Your task to perform on an android device: manage bookmarks in the chrome app Image 0: 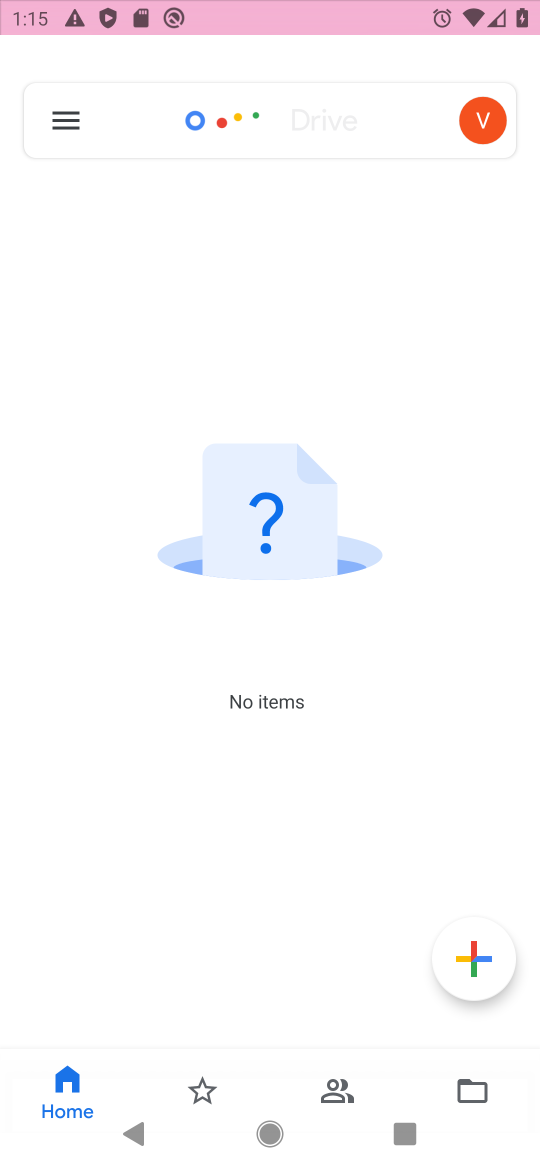
Step 0: click (307, 1059)
Your task to perform on an android device: manage bookmarks in the chrome app Image 1: 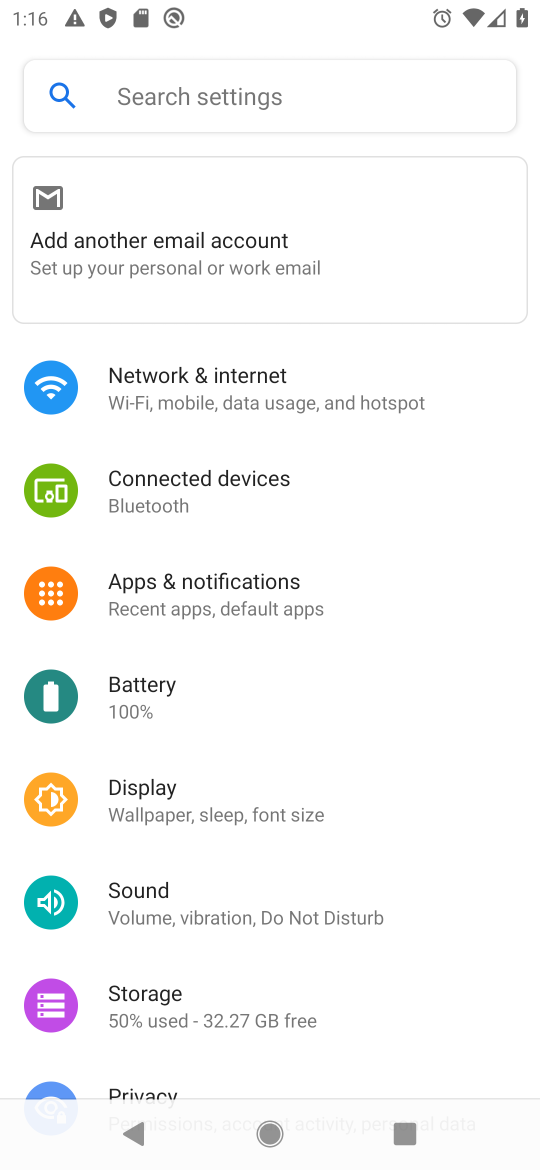
Step 1: press home button
Your task to perform on an android device: manage bookmarks in the chrome app Image 2: 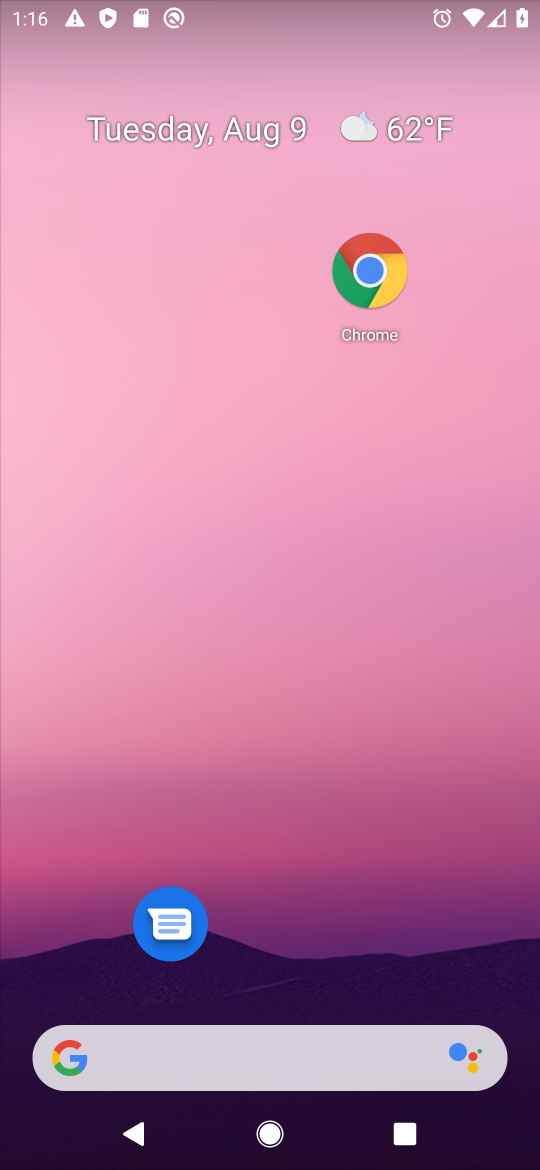
Step 2: click (371, 288)
Your task to perform on an android device: manage bookmarks in the chrome app Image 3: 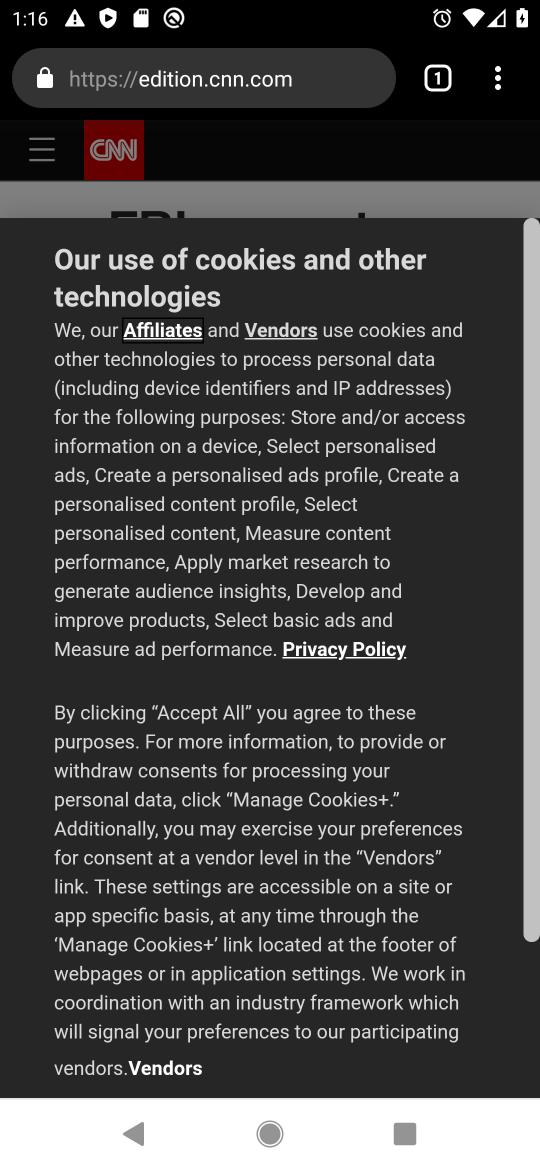
Step 3: click (496, 95)
Your task to perform on an android device: manage bookmarks in the chrome app Image 4: 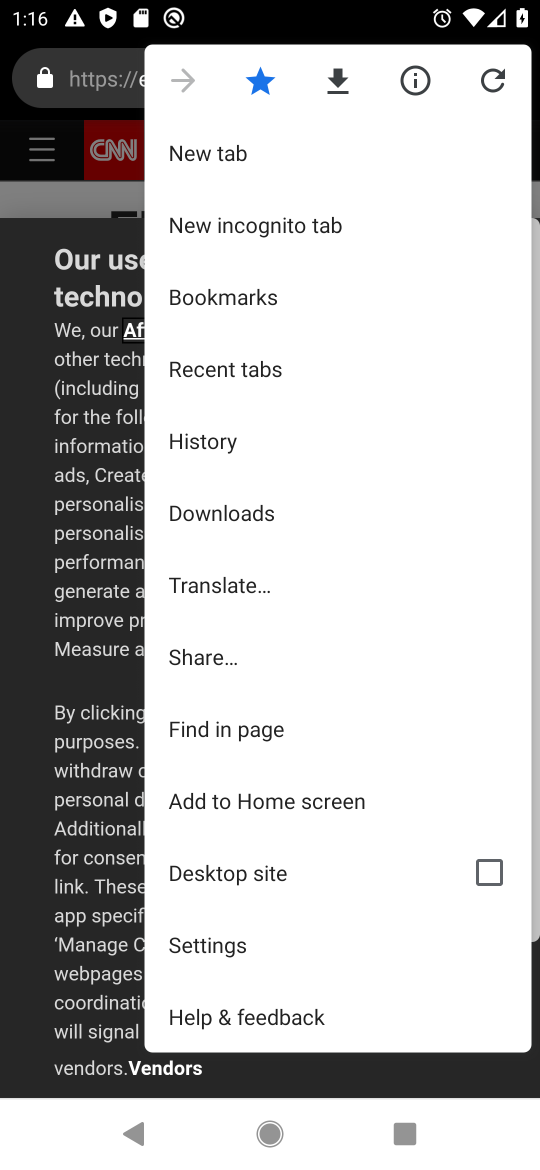
Step 4: click (348, 932)
Your task to perform on an android device: manage bookmarks in the chrome app Image 5: 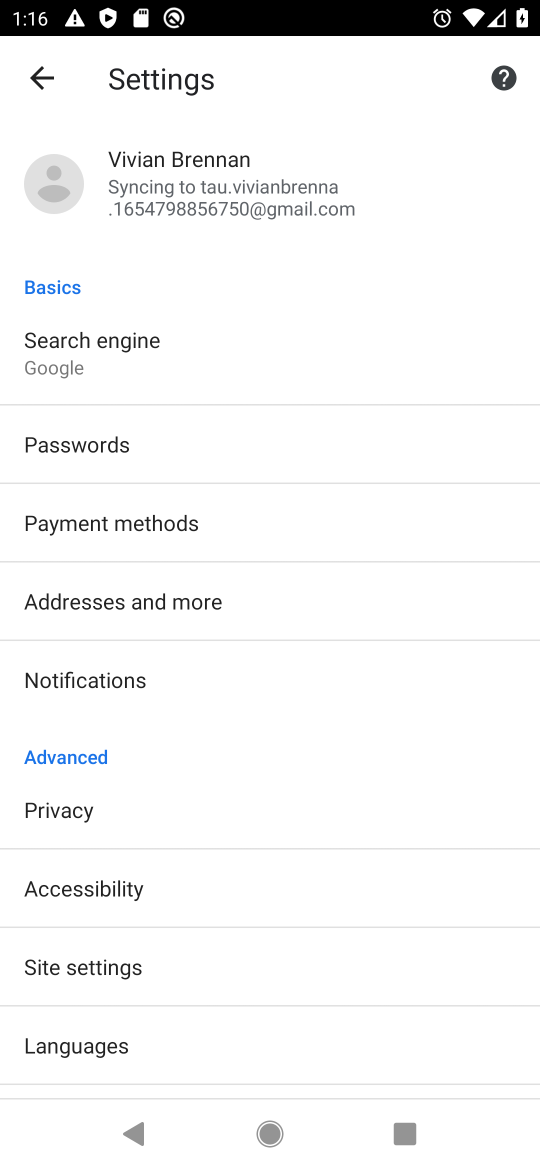
Step 5: task complete